Your task to perform on an android device: turn notification dots off Image 0: 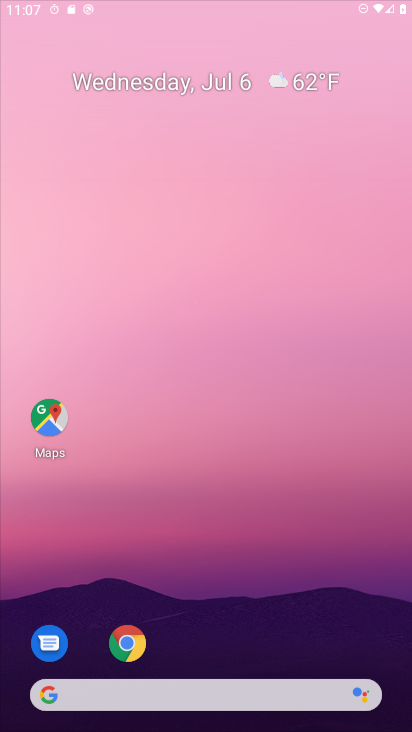
Step 0: press home button
Your task to perform on an android device: turn notification dots off Image 1: 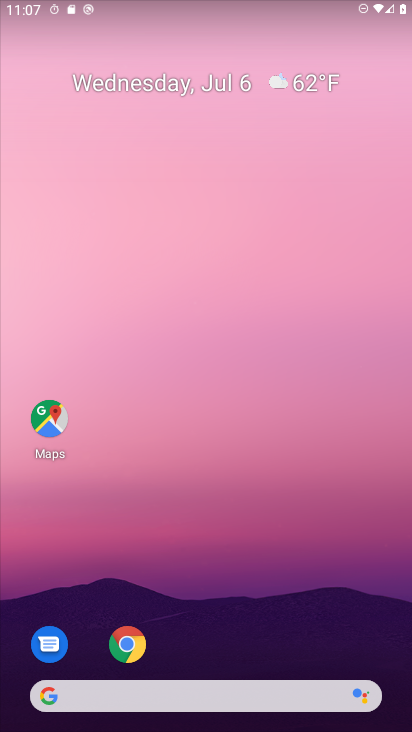
Step 1: click (340, 372)
Your task to perform on an android device: turn notification dots off Image 2: 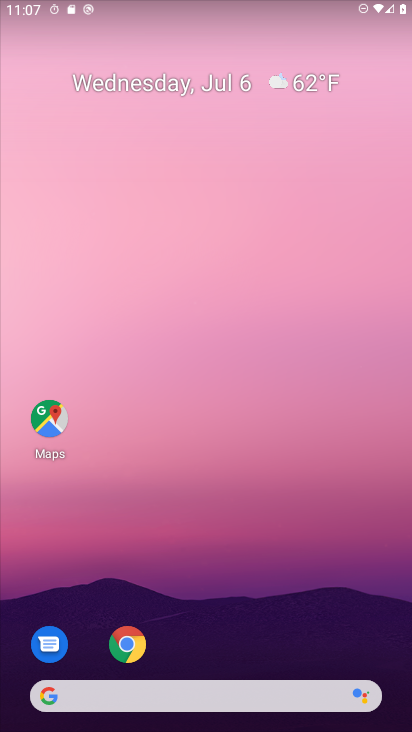
Step 2: drag from (251, 661) to (298, 13)
Your task to perform on an android device: turn notification dots off Image 3: 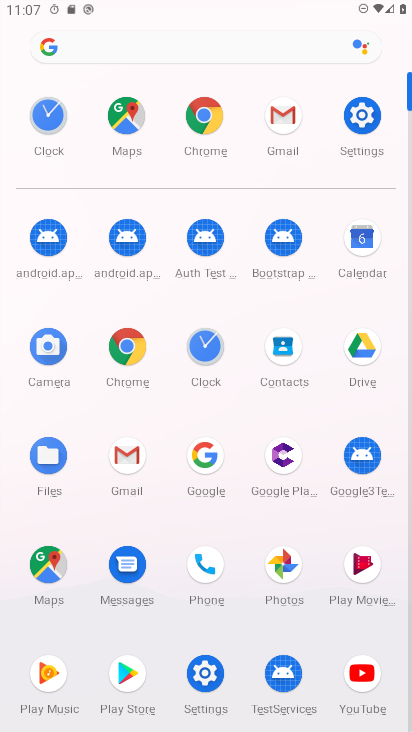
Step 3: click (359, 127)
Your task to perform on an android device: turn notification dots off Image 4: 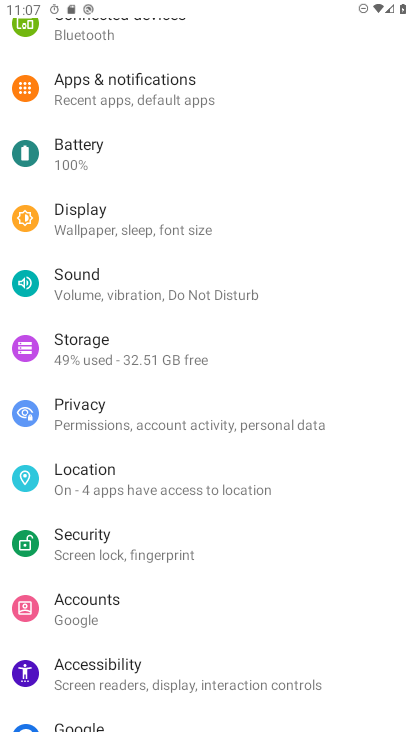
Step 4: click (90, 97)
Your task to perform on an android device: turn notification dots off Image 5: 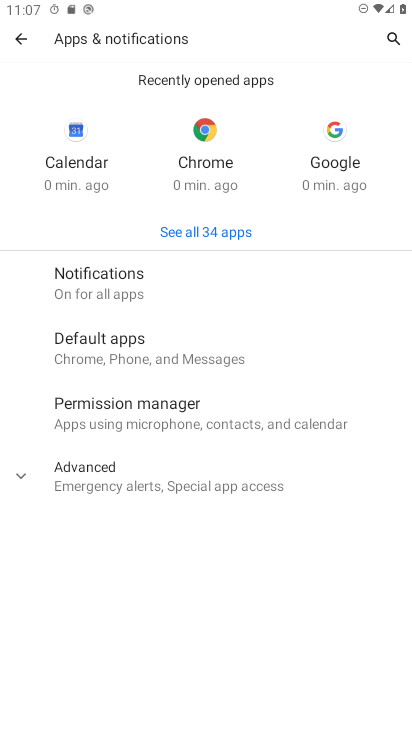
Step 5: click (96, 276)
Your task to perform on an android device: turn notification dots off Image 6: 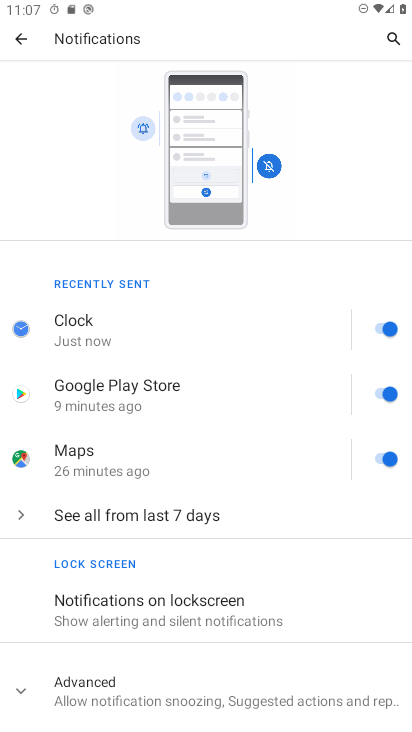
Step 6: drag from (287, 660) to (220, 255)
Your task to perform on an android device: turn notification dots off Image 7: 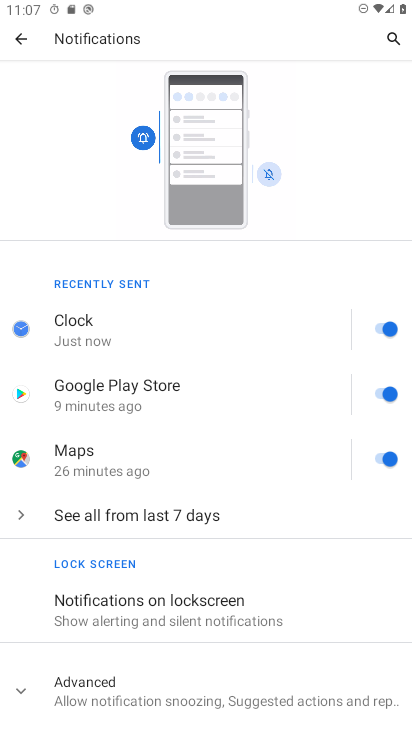
Step 7: click (73, 700)
Your task to perform on an android device: turn notification dots off Image 8: 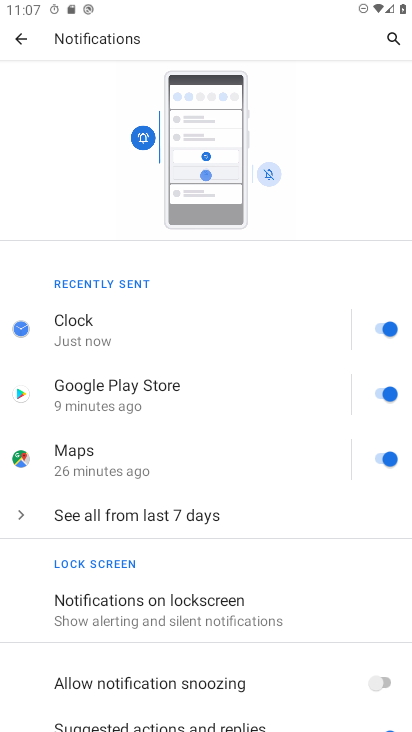
Step 8: drag from (301, 689) to (244, 16)
Your task to perform on an android device: turn notification dots off Image 9: 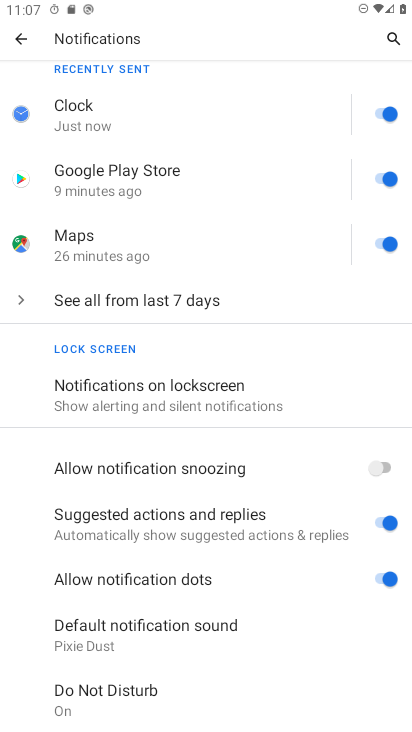
Step 9: click (389, 582)
Your task to perform on an android device: turn notification dots off Image 10: 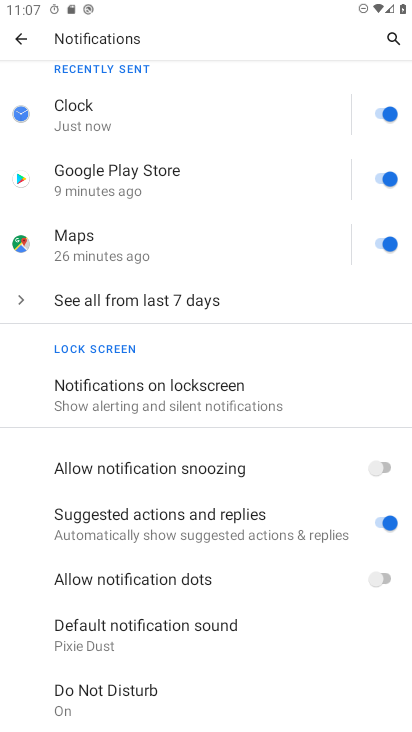
Step 10: task complete